Your task to perform on an android device: Open Youtube and go to the subscriptions tab Image 0: 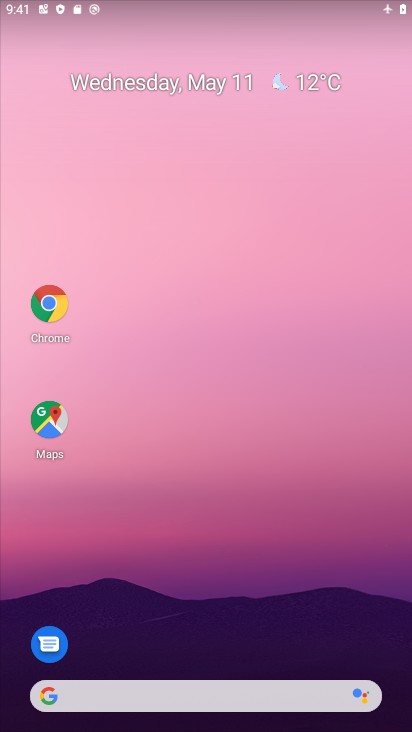
Step 0: drag from (151, 642) to (246, 161)
Your task to perform on an android device: Open Youtube and go to the subscriptions tab Image 1: 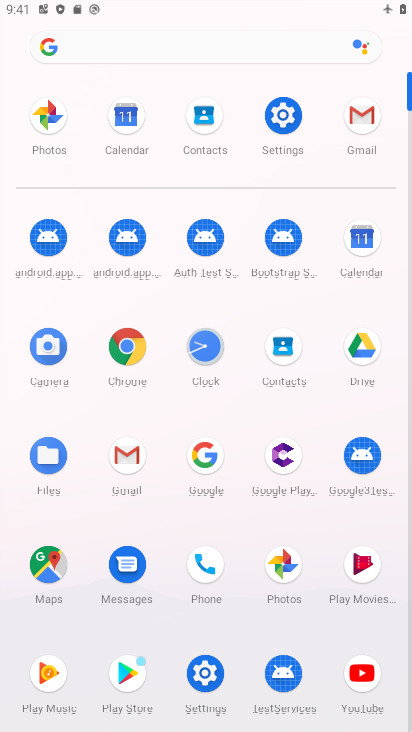
Step 1: click (364, 681)
Your task to perform on an android device: Open Youtube and go to the subscriptions tab Image 2: 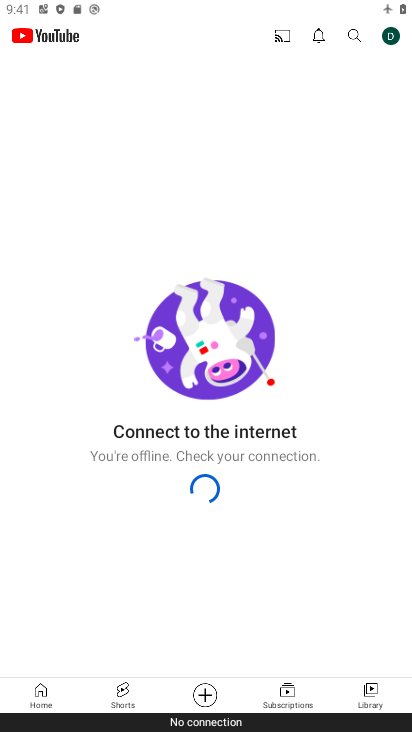
Step 2: click (286, 693)
Your task to perform on an android device: Open Youtube and go to the subscriptions tab Image 3: 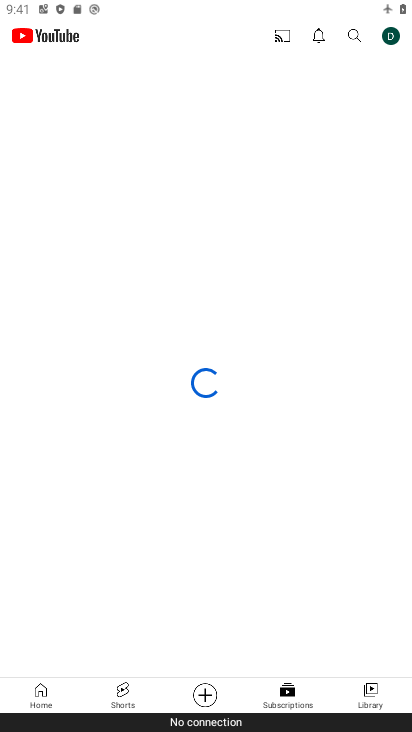
Step 3: task complete